Your task to perform on an android device: Play the last video I watched on Youtube Image 0: 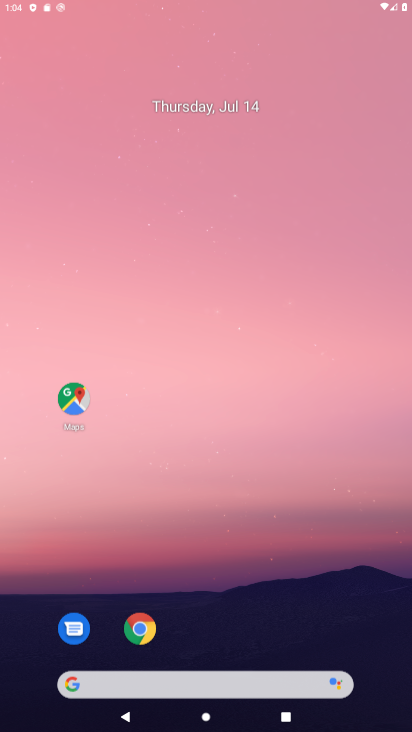
Step 0: drag from (212, 532) to (283, 81)
Your task to perform on an android device: Play the last video I watched on Youtube Image 1: 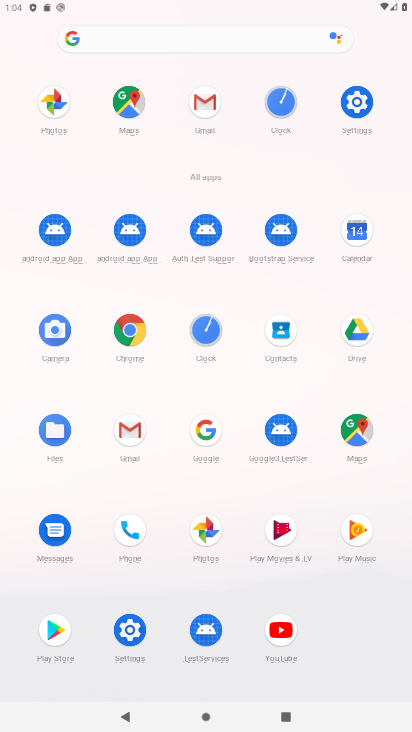
Step 1: drag from (216, 605) to (230, 279)
Your task to perform on an android device: Play the last video I watched on Youtube Image 2: 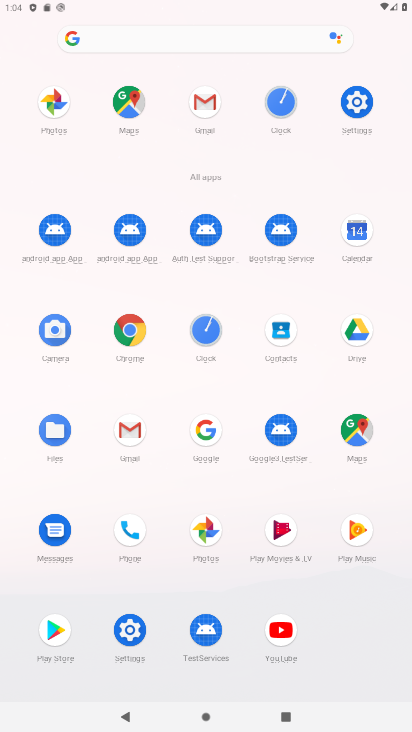
Step 2: click (275, 629)
Your task to perform on an android device: Play the last video I watched on Youtube Image 3: 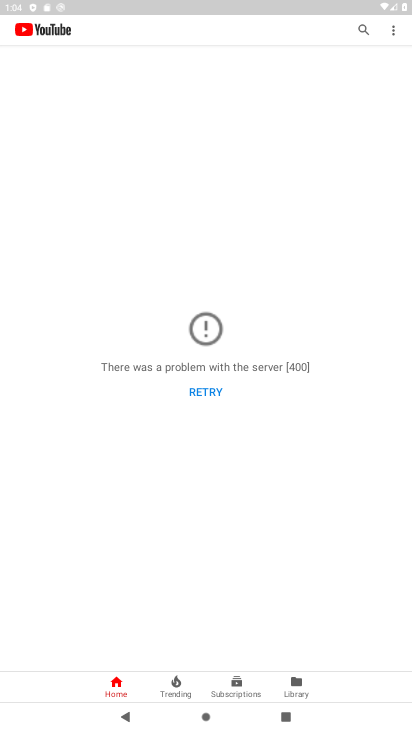
Step 3: drag from (214, 489) to (237, 198)
Your task to perform on an android device: Play the last video I watched on Youtube Image 4: 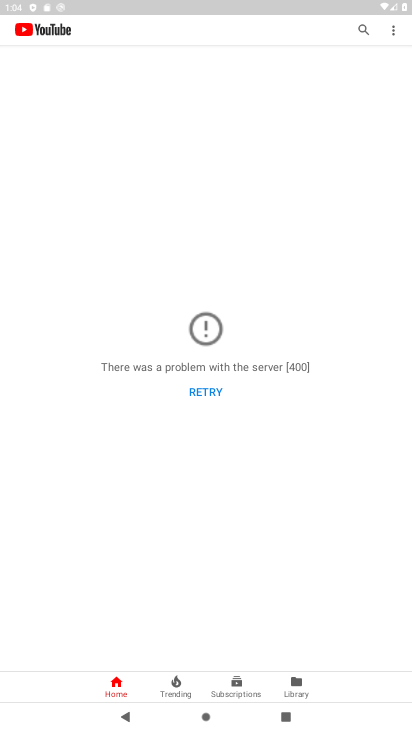
Step 4: drag from (248, 527) to (253, 372)
Your task to perform on an android device: Play the last video I watched on Youtube Image 5: 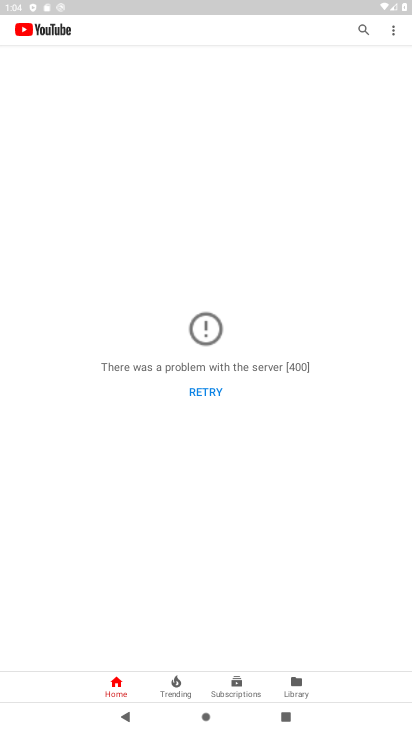
Step 5: click (288, 688)
Your task to perform on an android device: Play the last video I watched on Youtube Image 6: 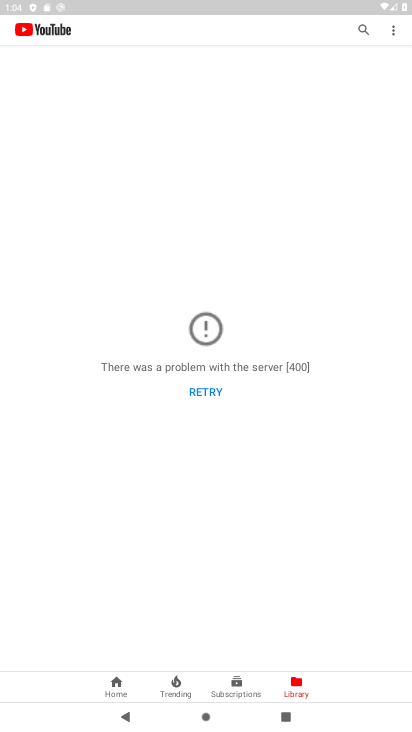
Step 6: drag from (238, 435) to (253, 343)
Your task to perform on an android device: Play the last video I watched on Youtube Image 7: 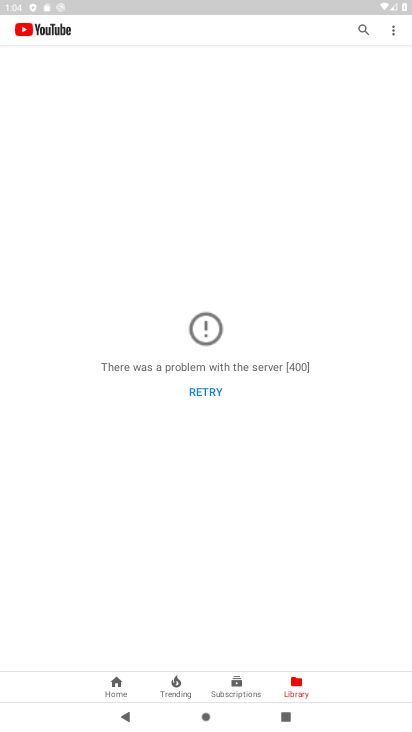
Step 7: click (210, 387)
Your task to perform on an android device: Play the last video I watched on Youtube Image 8: 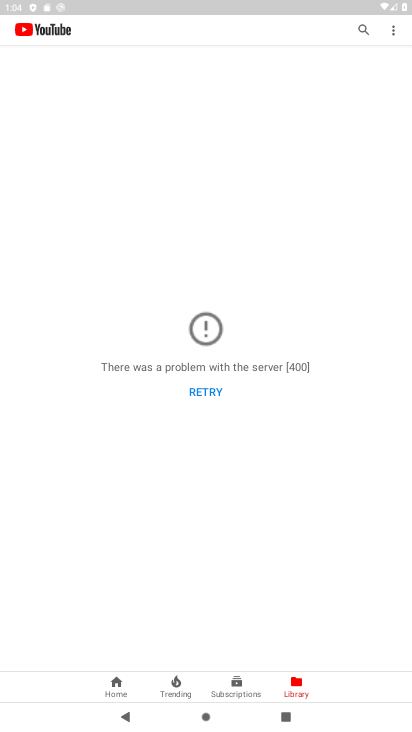
Step 8: click (208, 386)
Your task to perform on an android device: Play the last video I watched on Youtube Image 9: 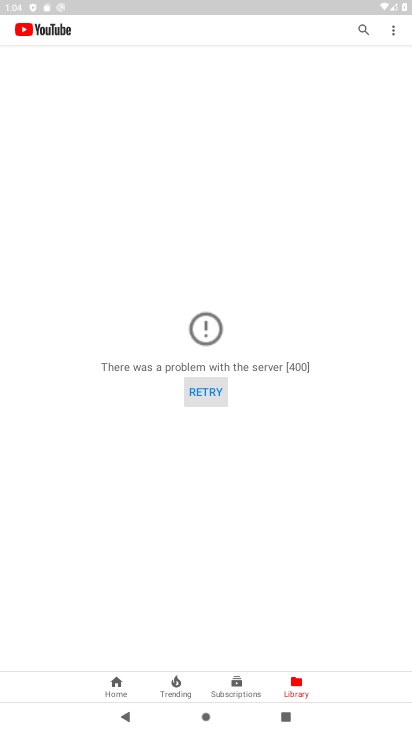
Step 9: task complete